Your task to perform on an android device: Show me popular videos on Youtube Image 0: 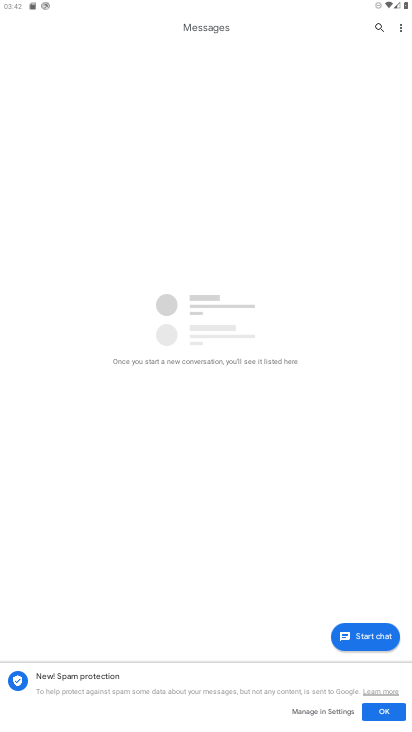
Step 0: press home button
Your task to perform on an android device: Show me popular videos on Youtube Image 1: 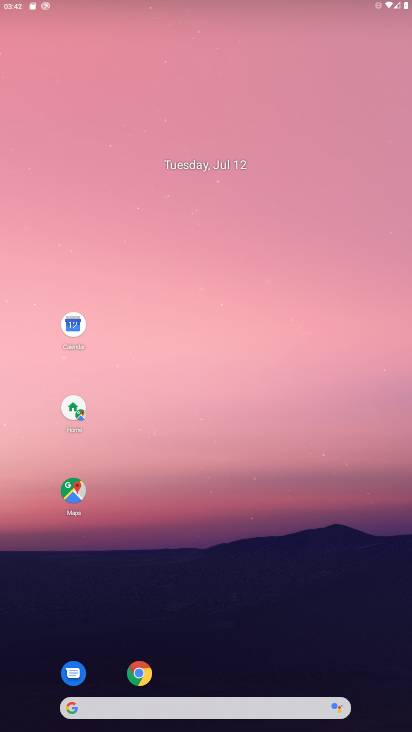
Step 1: drag from (239, 625) to (187, 223)
Your task to perform on an android device: Show me popular videos on Youtube Image 2: 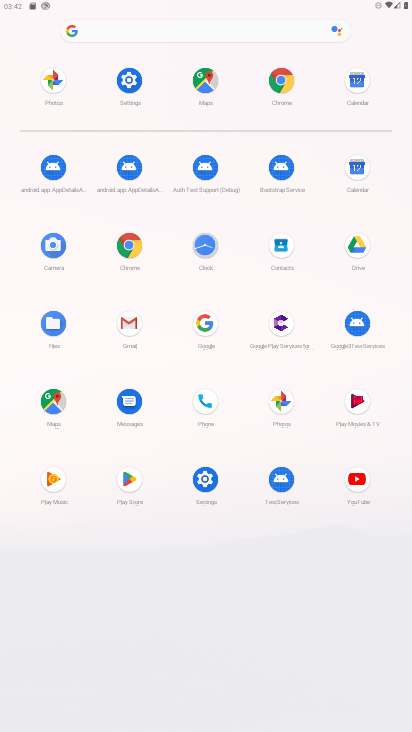
Step 2: click (360, 473)
Your task to perform on an android device: Show me popular videos on Youtube Image 3: 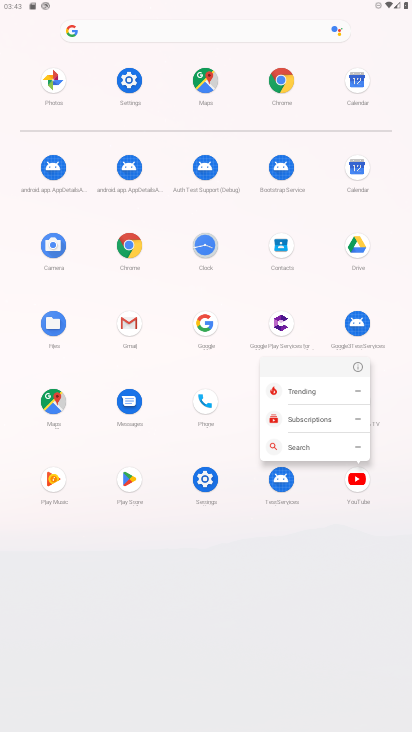
Step 3: click (353, 485)
Your task to perform on an android device: Show me popular videos on Youtube Image 4: 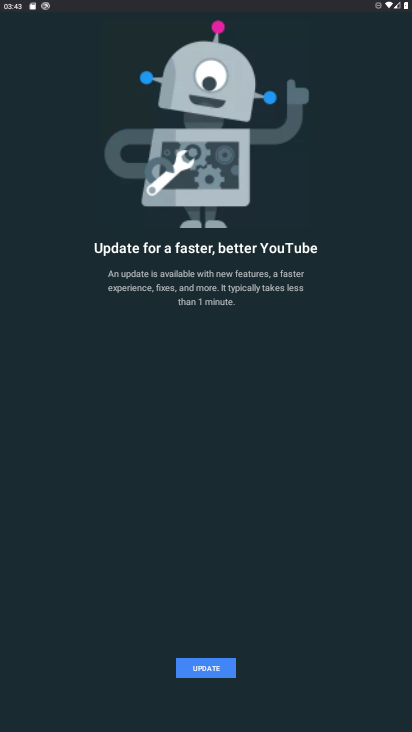
Step 4: task complete